Your task to perform on an android device: turn on translation in the chrome app Image 0: 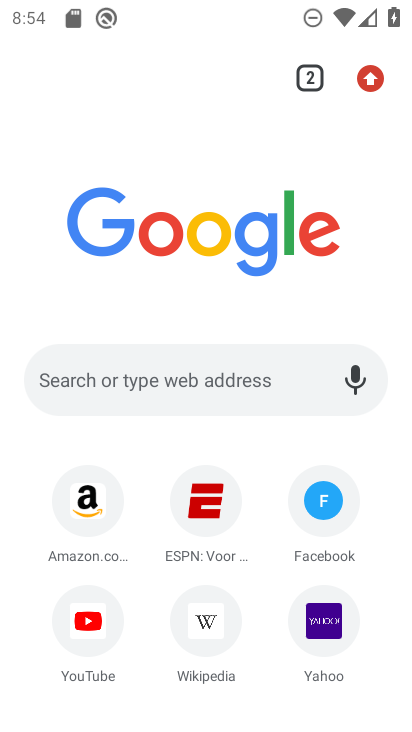
Step 0: click (366, 79)
Your task to perform on an android device: turn on translation in the chrome app Image 1: 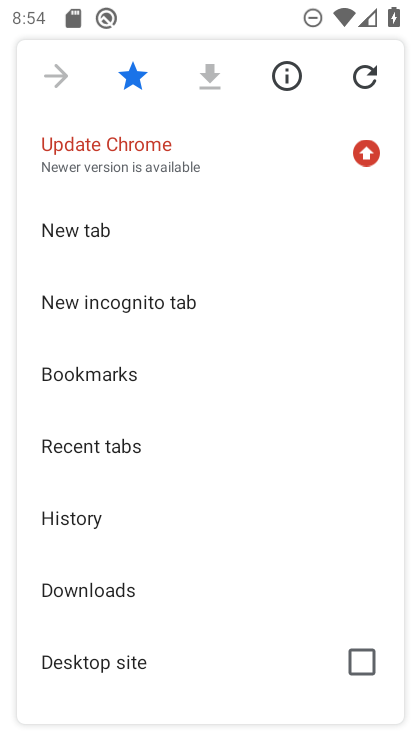
Step 1: drag from (190, 639) to (186, 312)
Your task to perform on an android device: turn on translation in the chrome app Image 2: 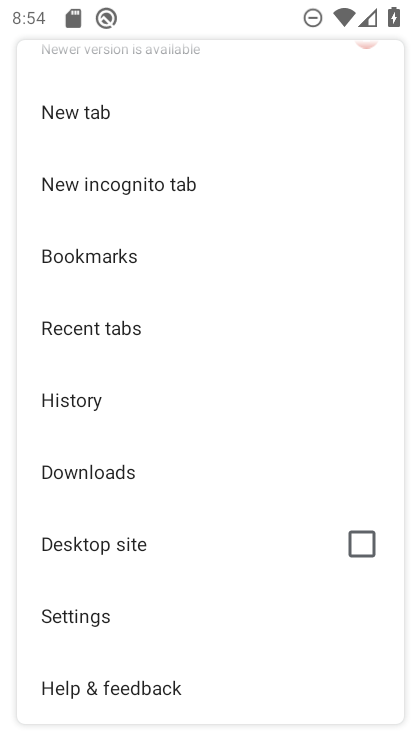
Step 2: click (55, 615)
Your task to perform on an android device: turn on translation in the chrome app Image 3: 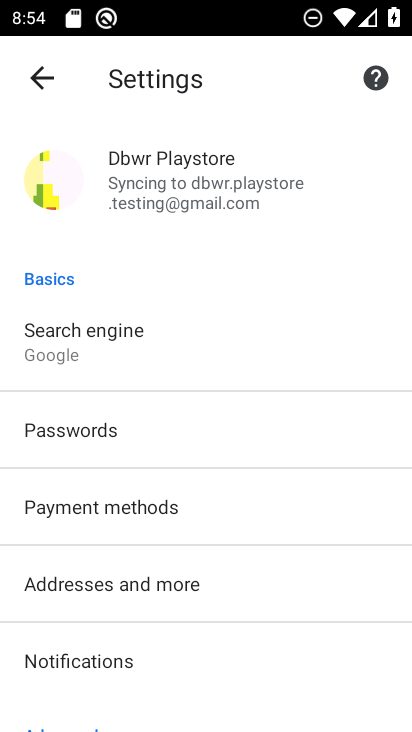
Step 3: drag from (231, 632) to (169, 308)
Your task to perform on an android device: turn on translation in the chrome app Image 4: 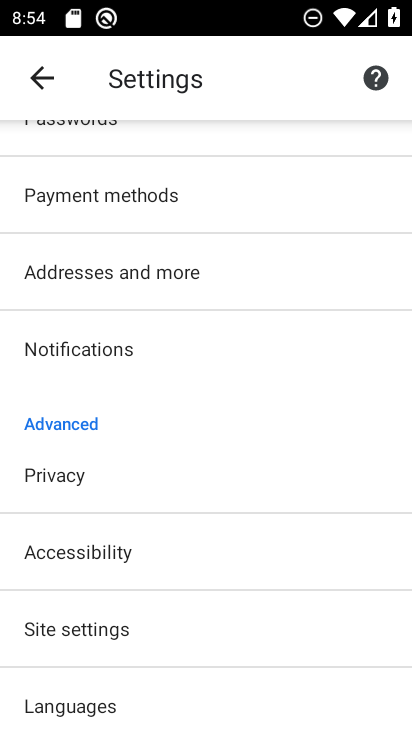
Step 4: drag from (179, 607) to (177, 322)
Your task to perform on an android device: turn on translation in the chrome app Image 5: 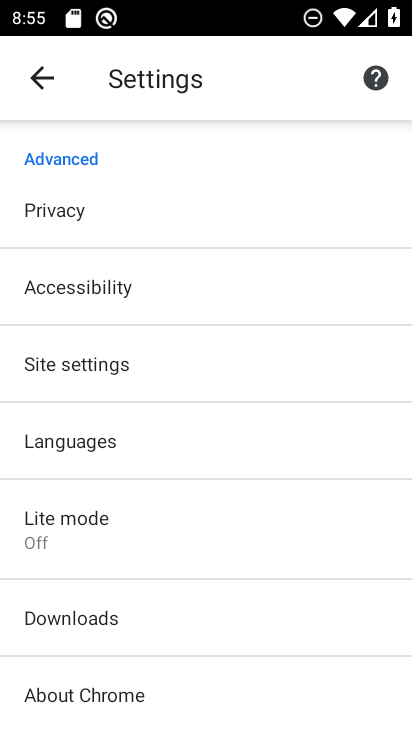
Step 5: click (77, 446)
Your task to perform on an android device: turn on translation in the chrome app Image 6: 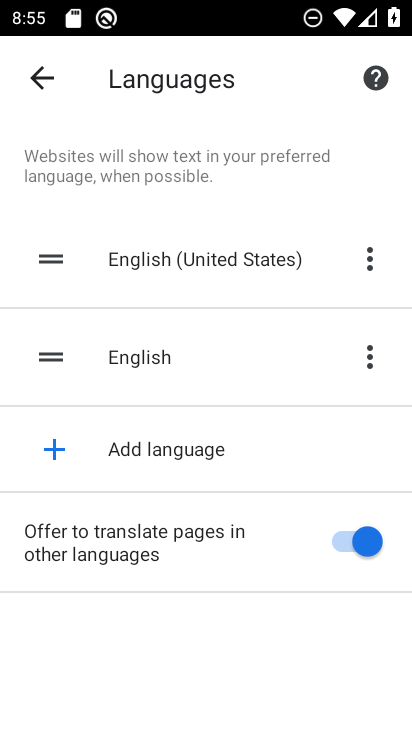
Step 6: task complete